Your task to perform on an android device: Open Yahoo.com Image 0: 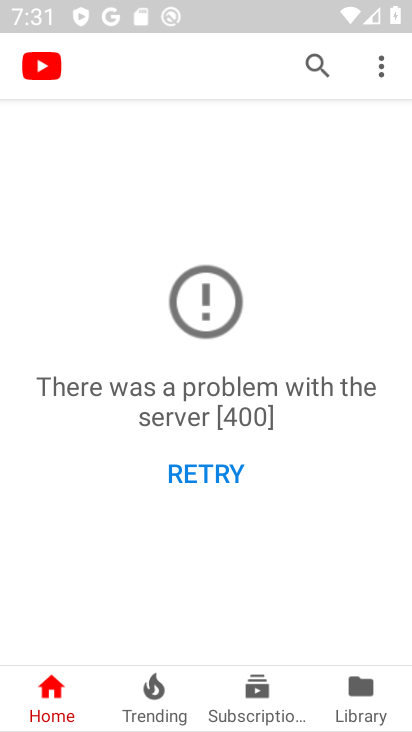
Step 0: press home button
Your task to perform on an android device: Open Yahoo.com Image 1: 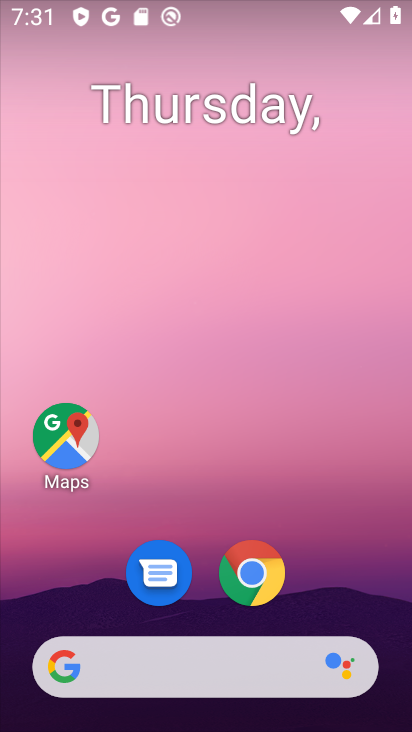
Step 1: click (272, 552)
Your task to perform on an android device: Open Yahoo.com Image 2: 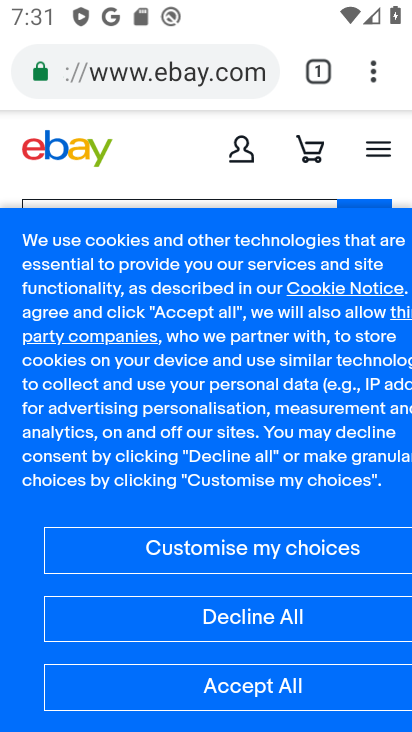
Step 2: click (216, 86)
Your task to perform on an android device: Open Yahoo.com Image 3: 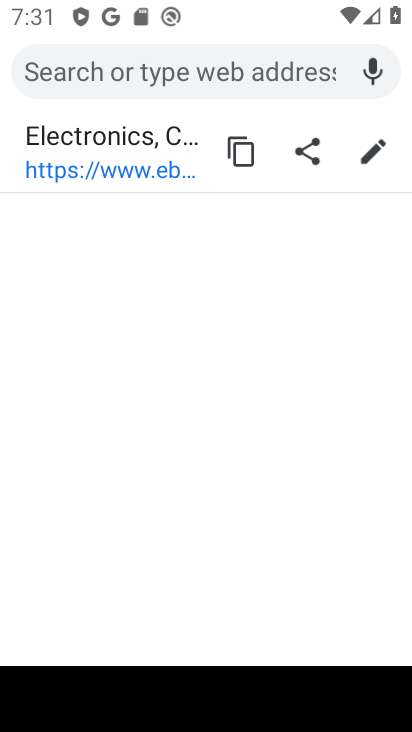
Step 3: type "yahoo.com"
Your task to perform on an android device: Open Yahoo.com Image 4: 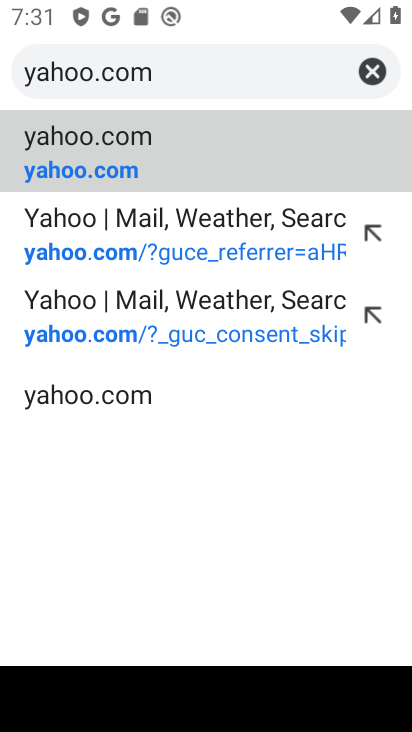
Step 4: click (69, 123)
Your task to perform on an android device: Open Yahoo.com Image 5: 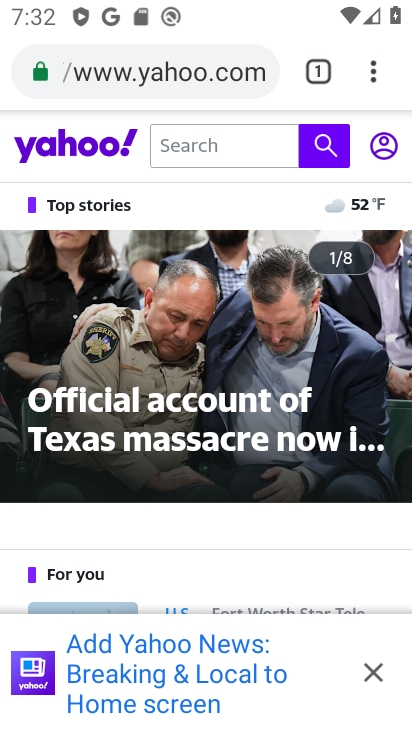
Step 5: task complete